Your task to perform on an android device: turn off priority inbox in the gmail app Image 0: 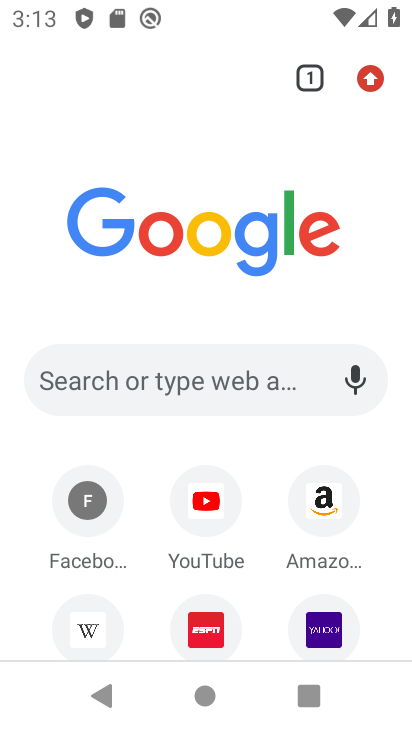
Step 0: press home button
Your task to perform on an android device: turn off priority inbox in the gmail app Image 1: 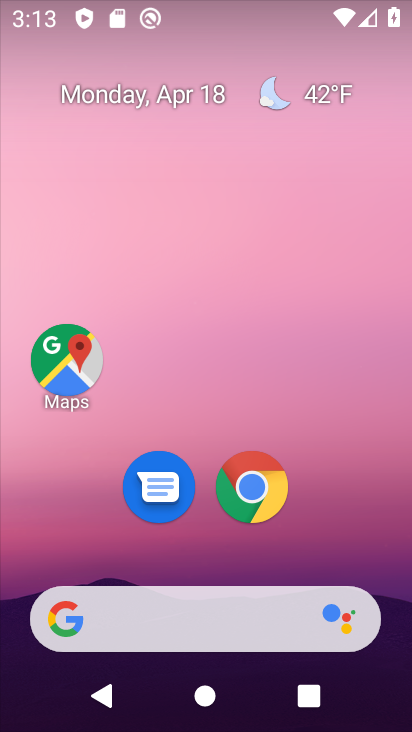
Step 1: drag from (210, 403) to (205, 53)
Your task to perform on an android device: turn off priority inbox in the gmail app Image 2: 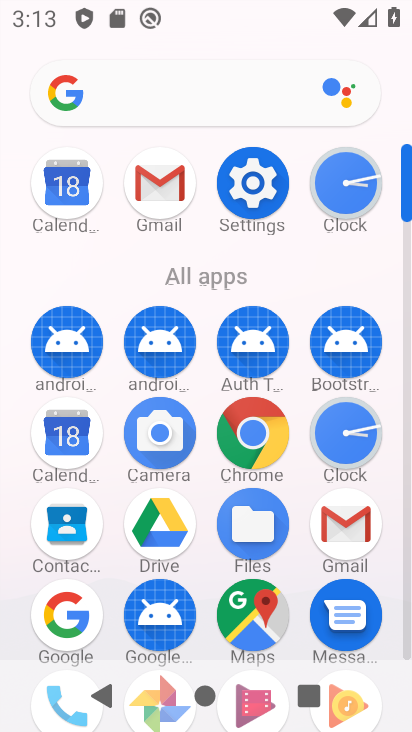
Step 2: click (344, 512)
Your task to perform on an android device: turn off priority inbox in the gmail app Image 3: 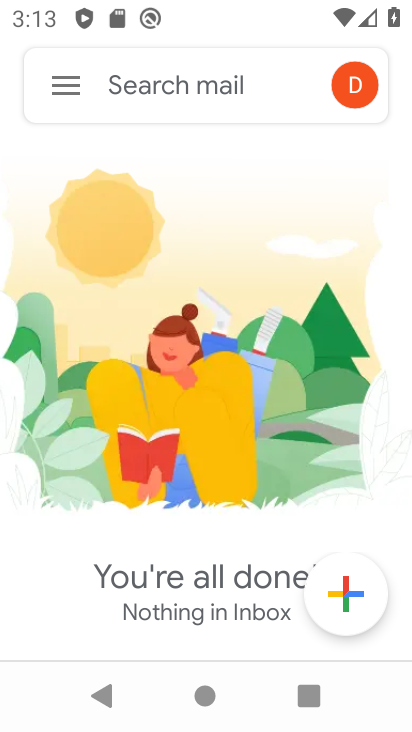
Step 3: click (70, 89)
Your task to perform on an android device: turn off priority inbox in the gmail app Image 4: 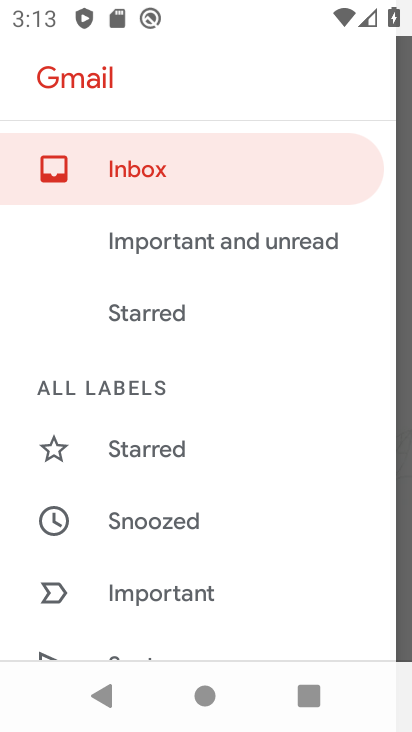
Step 4: drag from (265, 607) to (228, 123)
Your task to perform on an android device: turn off priority inbox in the gmail app Image 5: 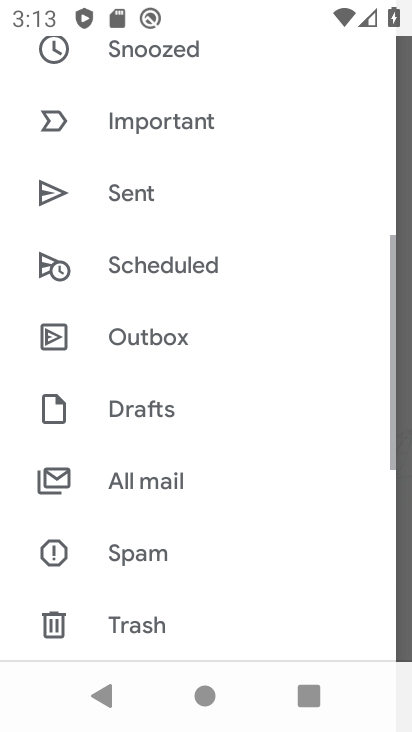
Step 5: drag from (198, 587) to (187, 238)
Your task to perform on an android device: turn off priority inbox in the gmail app Image 6: 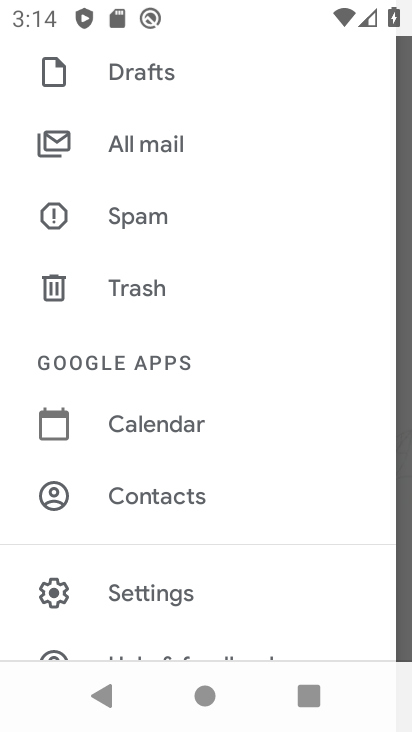
Step 6: click (173, 600)
Your task to perform on an android device: turn off priority inbox in the gmail app Image 7: 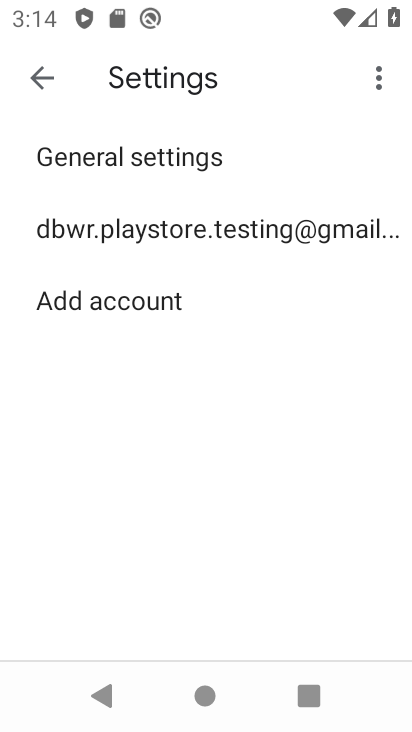
Step 7: click (139, 211)
Your task to perform on an android device: turn off priority inbox in the gmail app Image 8: 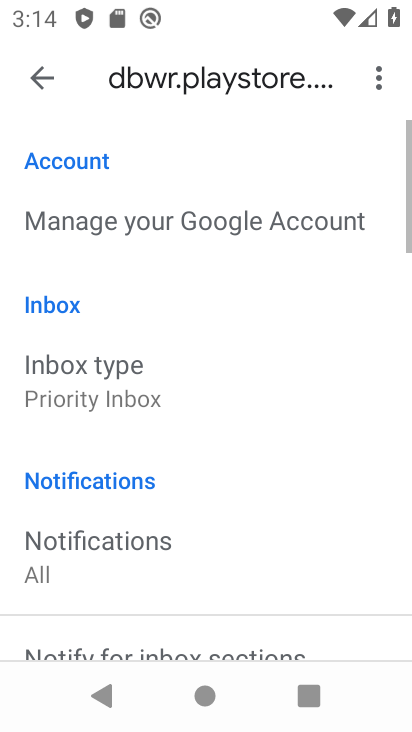
Step 8: click (166, 392)
Your task to perform on an android device: turn off priority inbox in the gmail app Image 9: 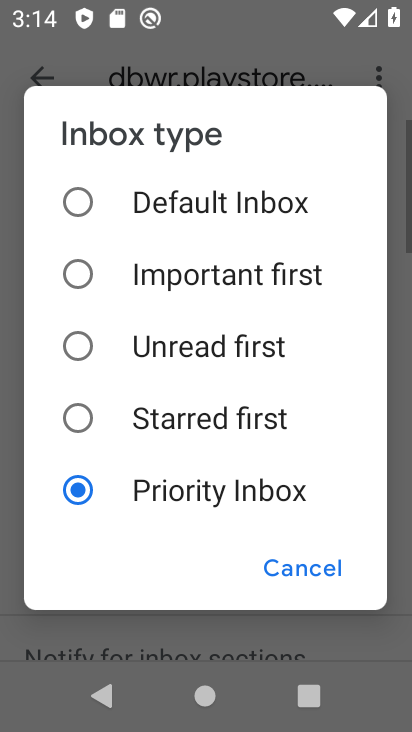
Step 9: click (155, 206)
Your task to perform on an android device: turn off priority inbox in the gmail app Image 10: 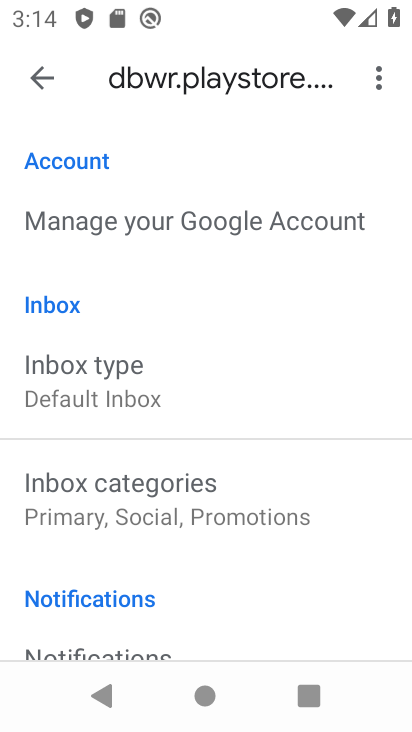
Step 10: task complete